Your task to perform on an android device: Open notification settings Image 0: 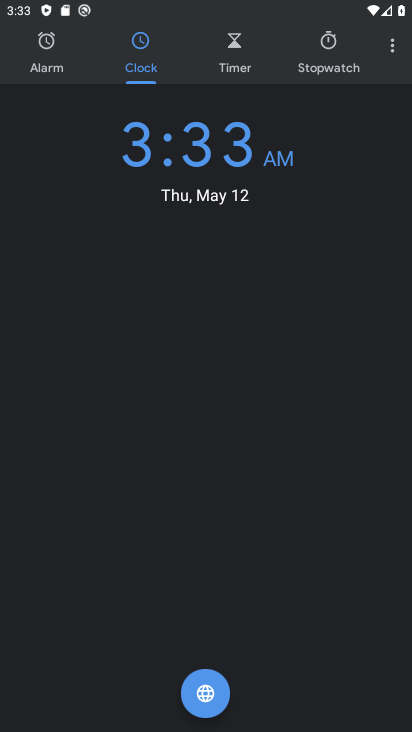
Step 0: press home button
Your task to perform on an android device: Open notification settings Image 1: 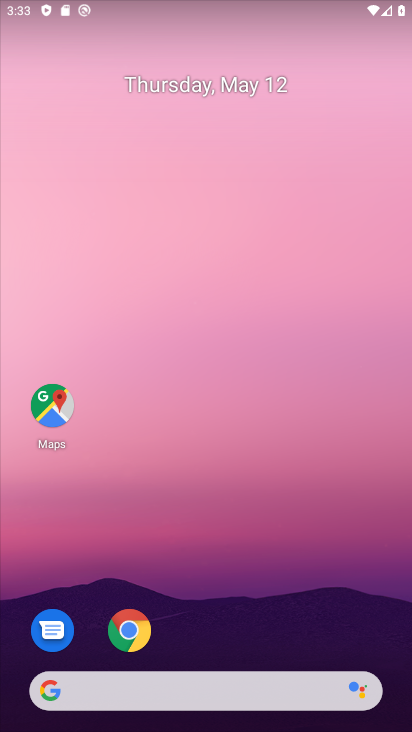
Step 1: drag from (209, 581) to (283, 4)
Your task to perform on an android device: Open notification settings Image 2: 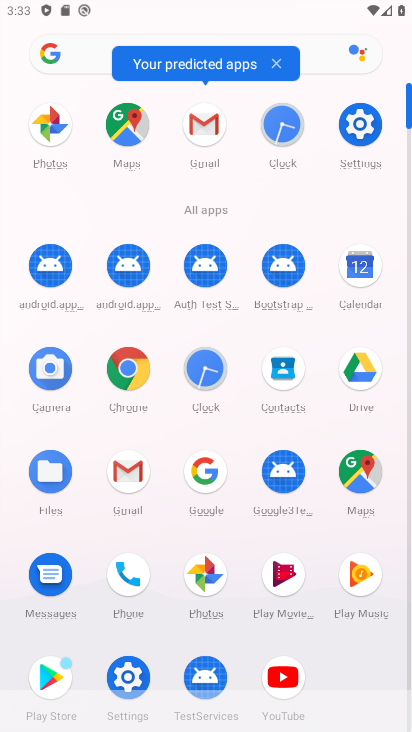
Step 2: click (126, 671)
Your task to perform on an android device: Open notification settings Image 3: 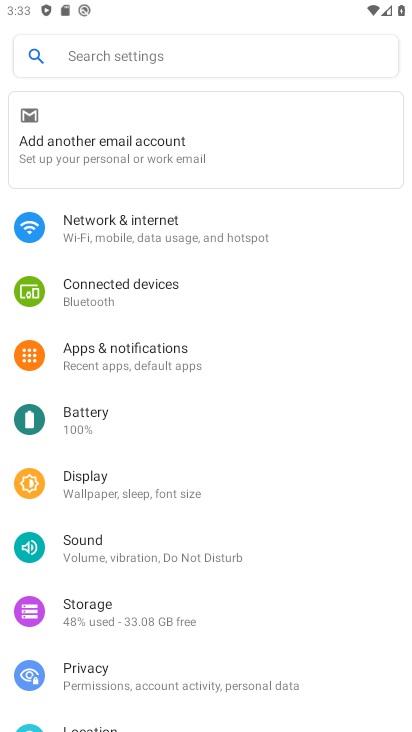
Step 3: click (145, 353)
Your task to perform on an android device: Open notification settings Image 4: 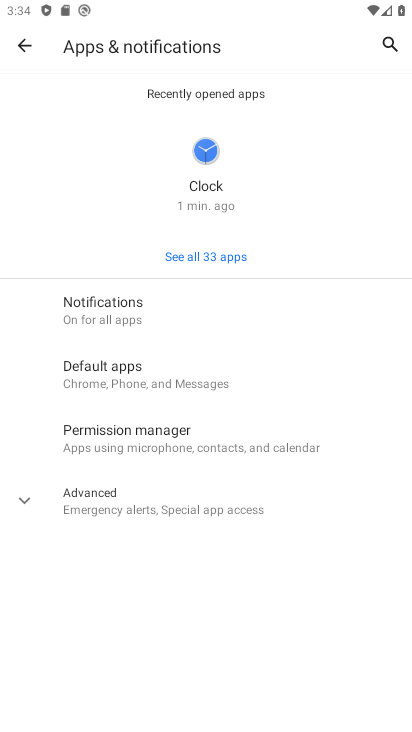
Step 4: click (120, 307)
Your task to perform on an android device: Open notification settings Image 5: 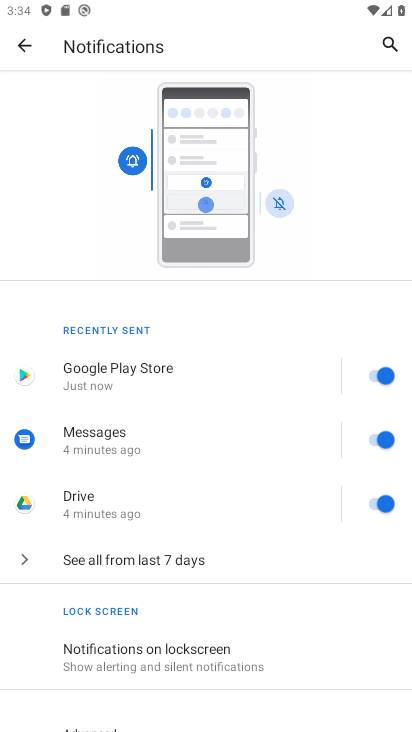
Step 5: task complete